Your task to perform on an android device: Go to network settings Image 0: 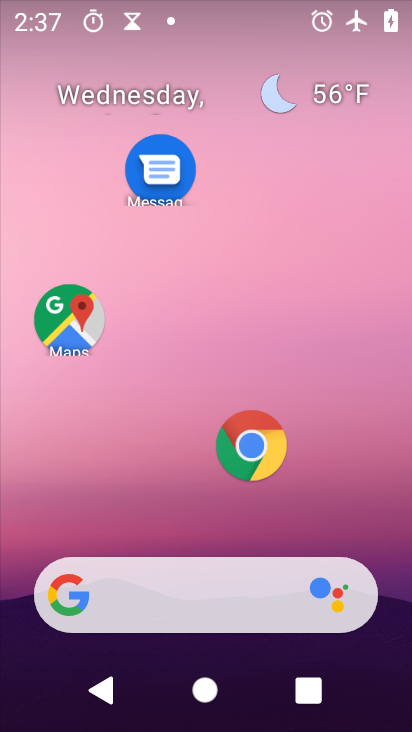
Step 0: drag from (188, 521) to (245, 69)
Your task to perform on an android device: Go to network settings Image 1: 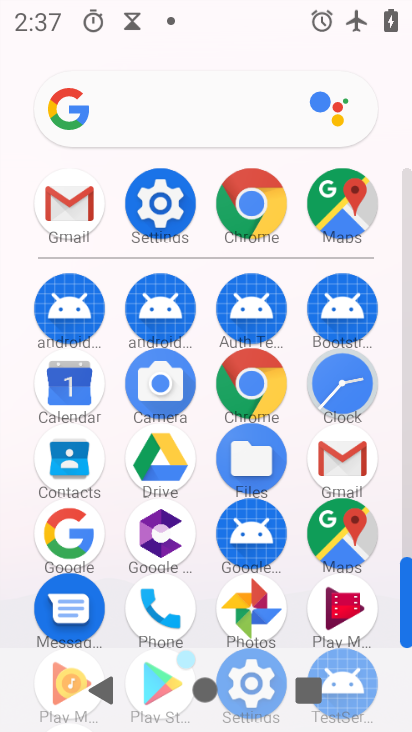
Step 1: drag from (193, 262) to (212, 71)
Your task to perform on an android device: Go to network settings Image 2: 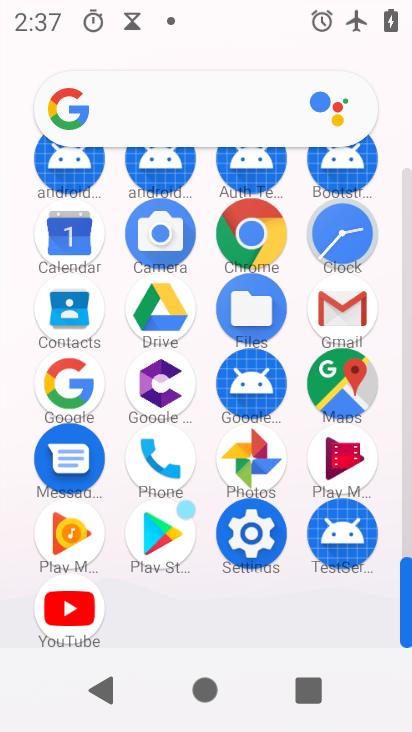
Step 2: click (262, 543)
Your task to perform on an android device: Go to network settings Image 3: 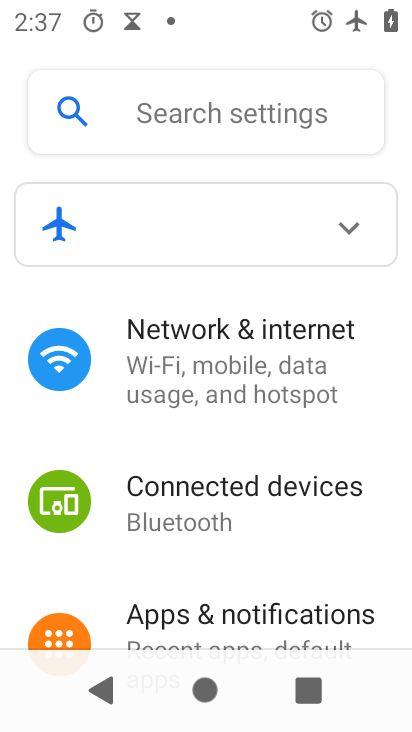
Step 3: click (219, 380)
Your task to perform on an android device: Go to network settings Image 4: 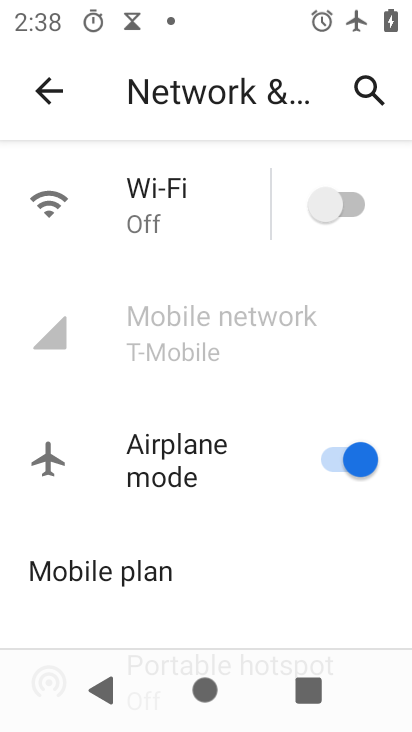
Step 4: task complete